Your task to perform on an android device: Is it going to rain tomorrow? Image 0: 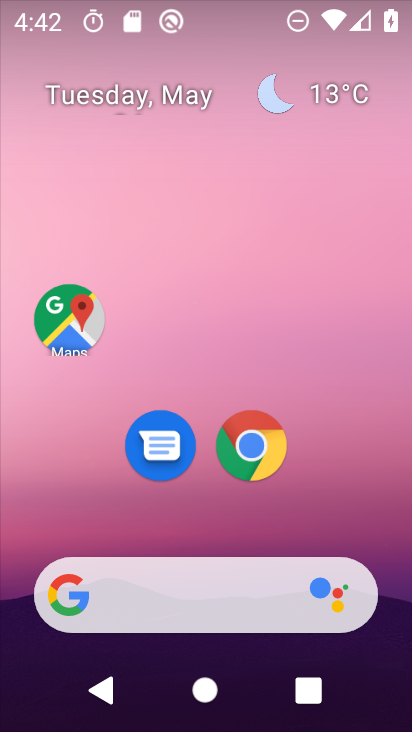
Step 0: press home button
Your task to perform on an android device: Is it going to rain tomorrow? Image 1: 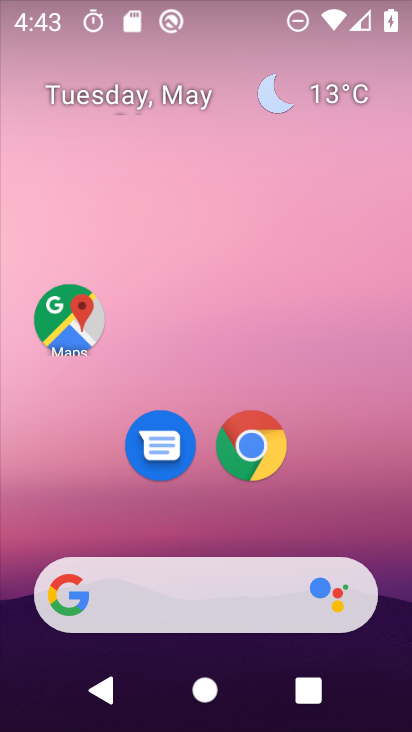
Step 1: click (211, 529)
Your task to perform on an android device: Is it going to rain tomorrow? Image 2: 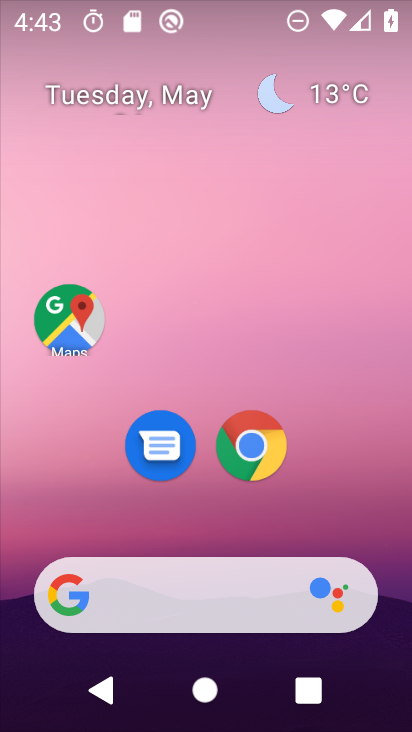
Step 2: click (336, 93)
Your task to perform on an android device: Is it going to rain tomorrow? Image 3: 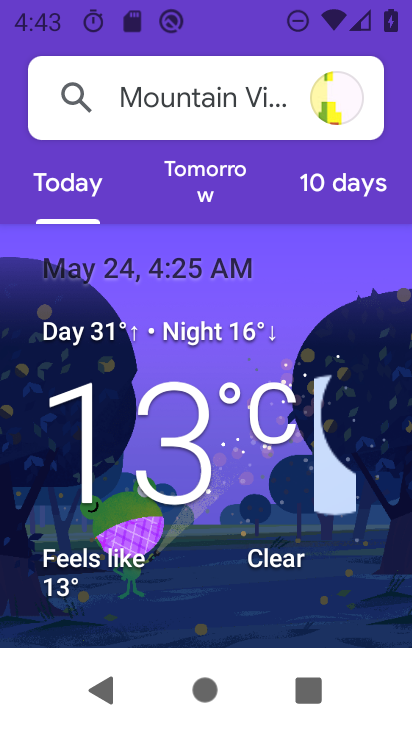
Step 3: task complete